Your task to perform on an android device: turn off sleep mode Image 0: 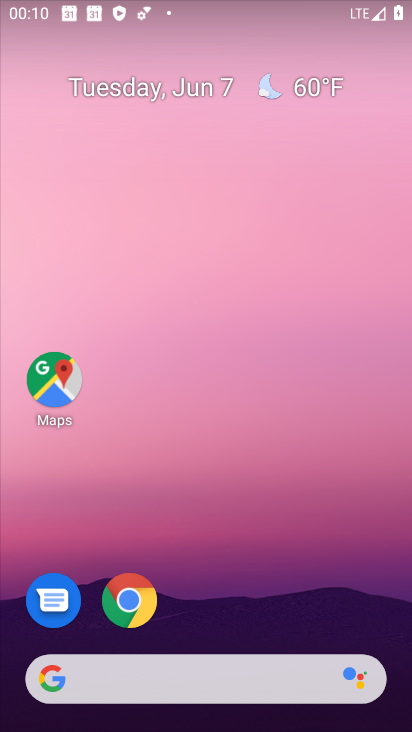
Step 0: drag from (228, 722) to (231, 285)
Your task to perform on an android device: turn off sleep mode Image 1: 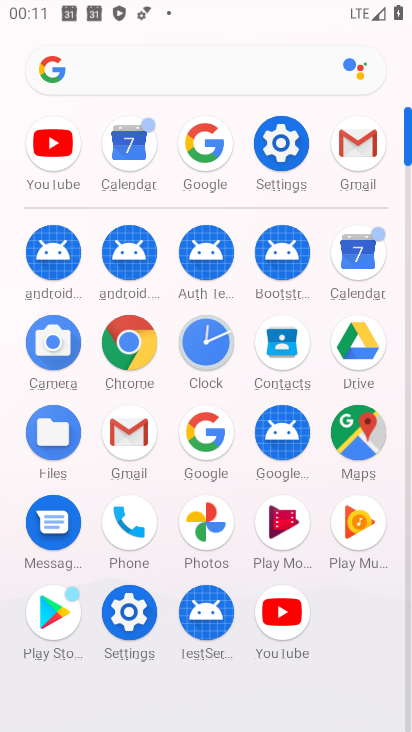
Step 1: click (280, 136)
Your task to perform on an android device: turn off sleep mode Image 2: 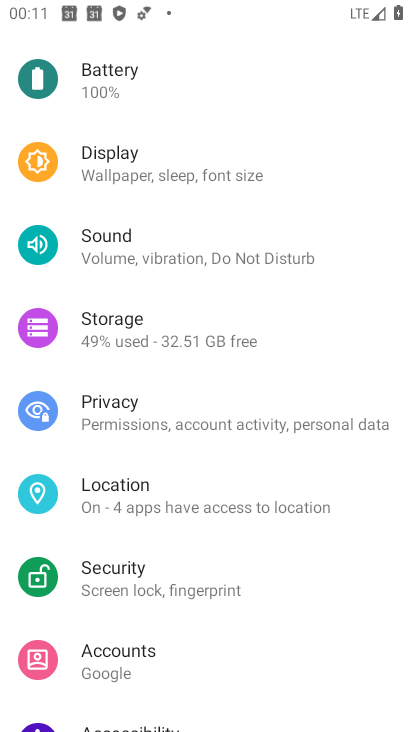
Step 2: task complete